Your task to perform on an android device: Go to network settings Image 0: 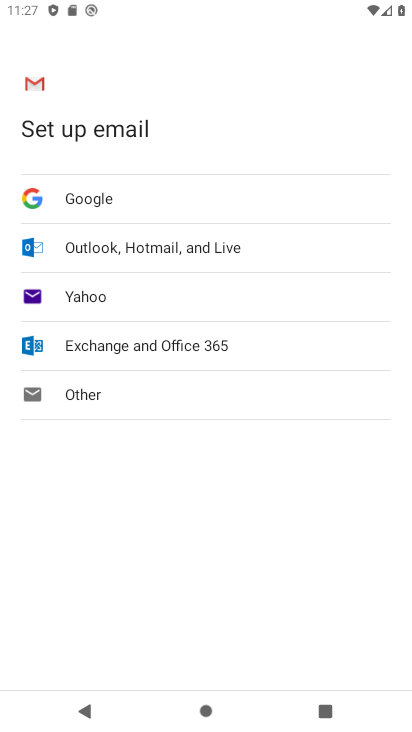
Step 0: drag from (240, 459) to (260, 368)
Your task to perform on an android device: Go to network settings Image 1: 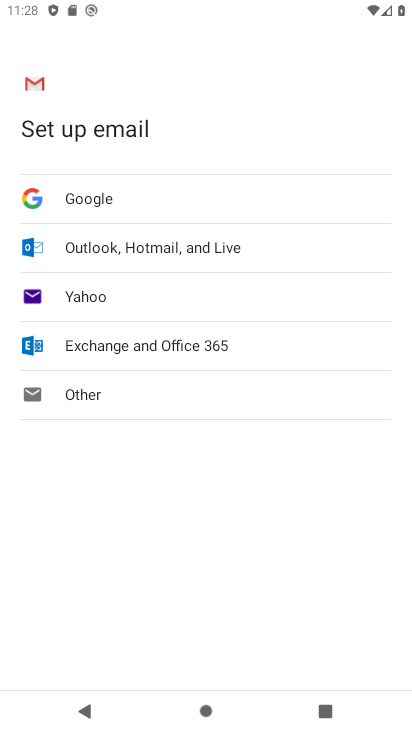
Step 1: press home button
Your task to perform on an android device: Go to network settings Image 2: 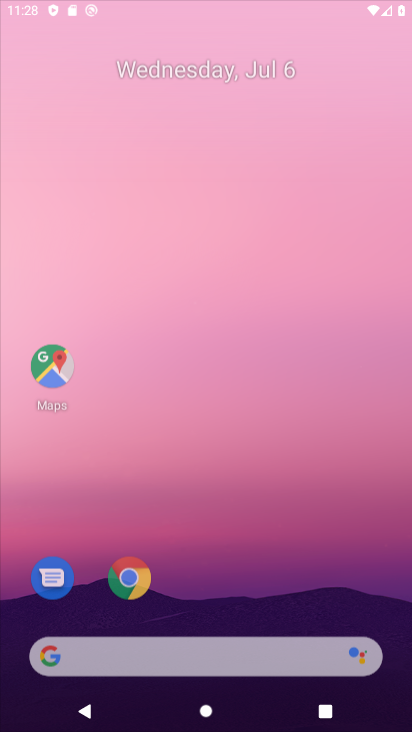
Step 2: drag from (220, 564) to (268, 212)
Your task to perform on an android device: Go to network settings Image 3: 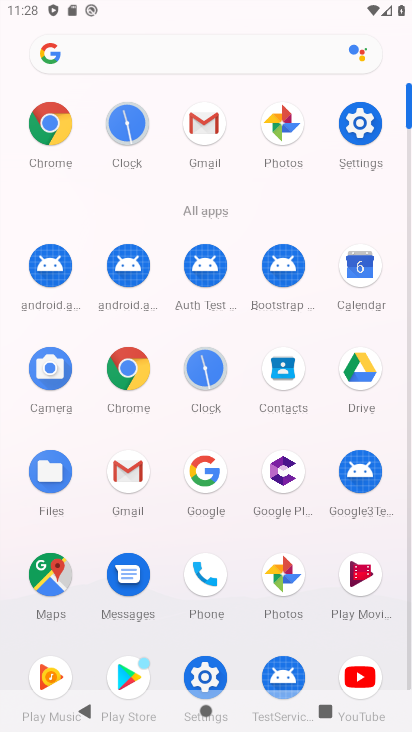
Step 3: click (357, 104)
Your task to perform on an android device: Go to network settings Image 4: 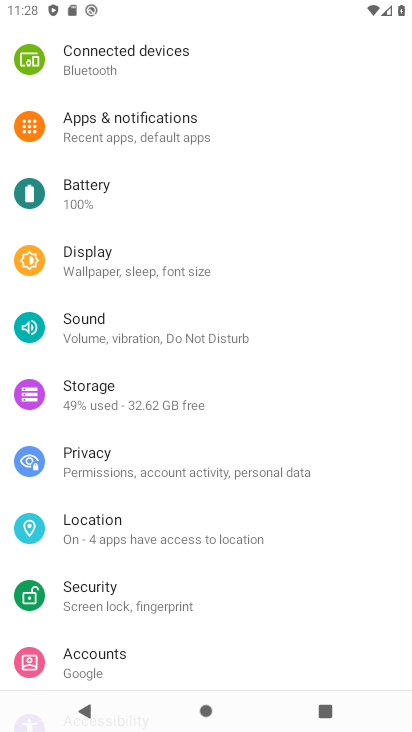
Step 4: drag from (199, 215) to (215, 720)
Your task to perform on an android device: Go to network settings Image 5: 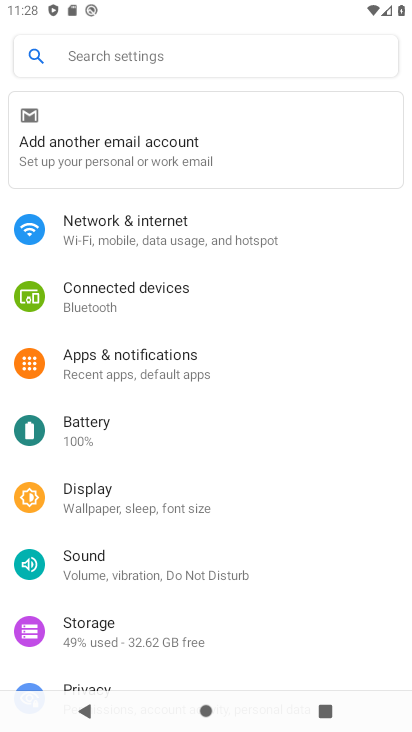
Step 5: click (148, 240)
Your task to perform on an android device: Go to network settings Image 6: 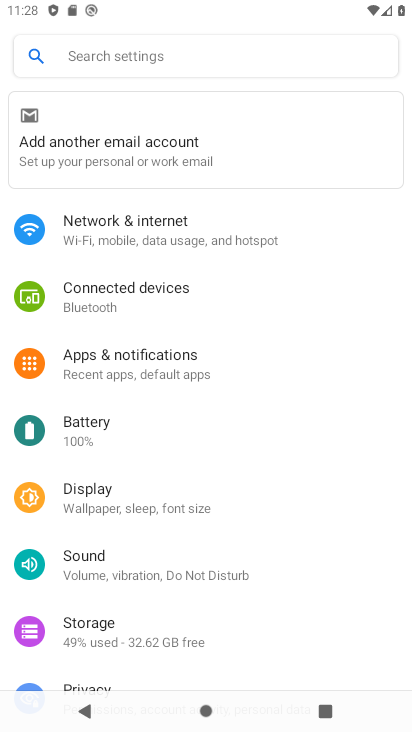
Step 6: click (148, 241)
Your task to perform on an android device: Go to network settings Image 7: 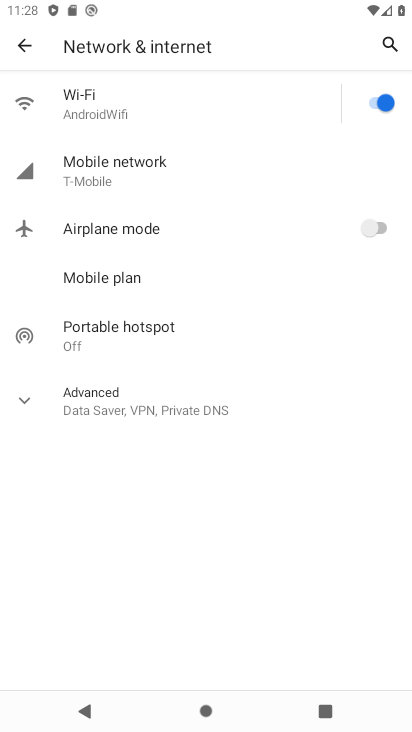
Step 7: click (198, 183)
Your task to perform on an android device: Go to network settings Image 8: 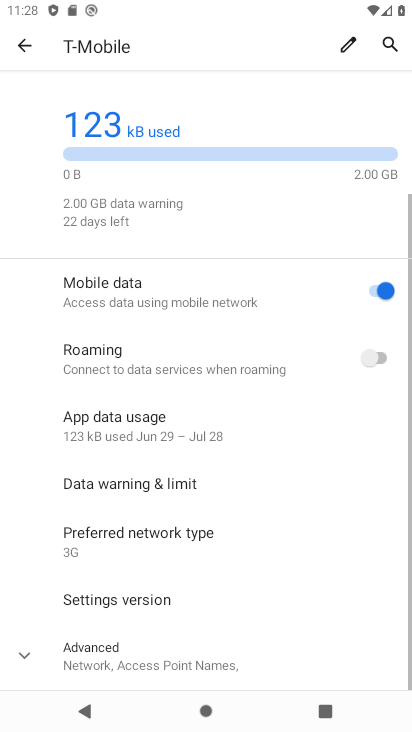
Step 8: task complete